Your task to perform on an android device: Open sound settings Image 0: 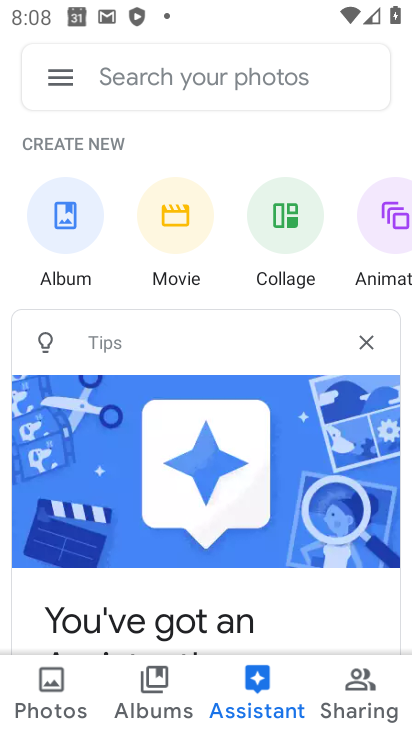
Step 0: press home button
Your task to perform on an android device: Open sound settings Image 1: 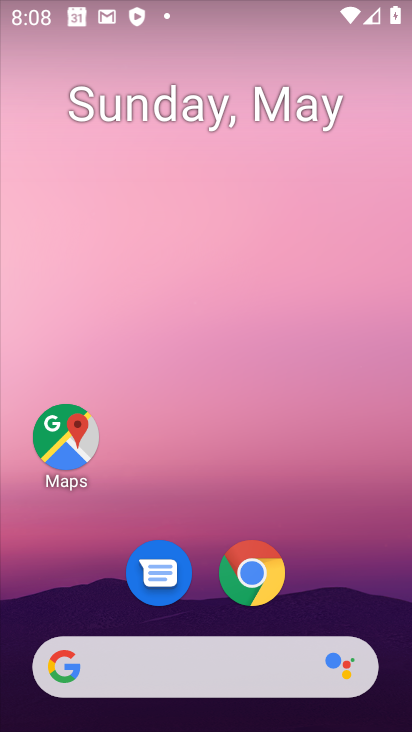
Step 1: drag from (178, 462) to (117, 4)
Your task to perform on an android device: Open sound settings Image 2: 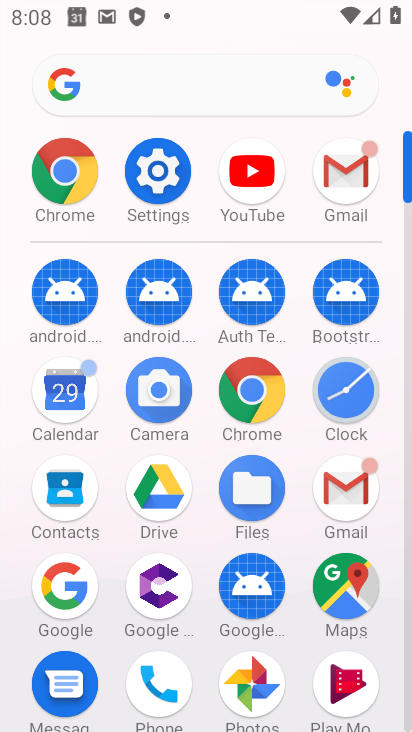
Step 2: click (153, 170)
Your task to perform on an android device: Open sound settings Image 3: 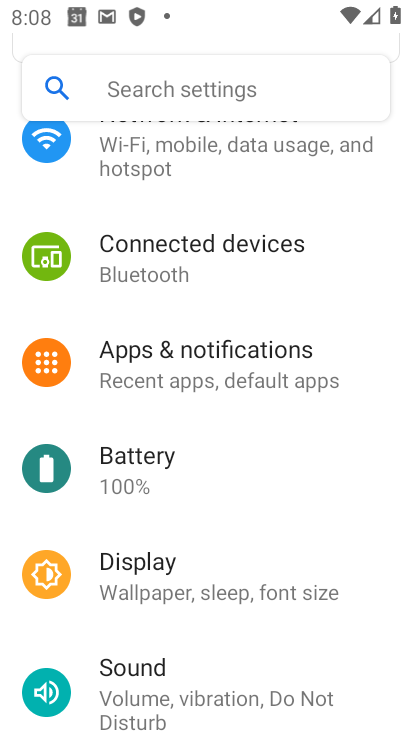
Step 3: click (214, 683)
Your task to perform on an android device: Open sound settings Image 4: 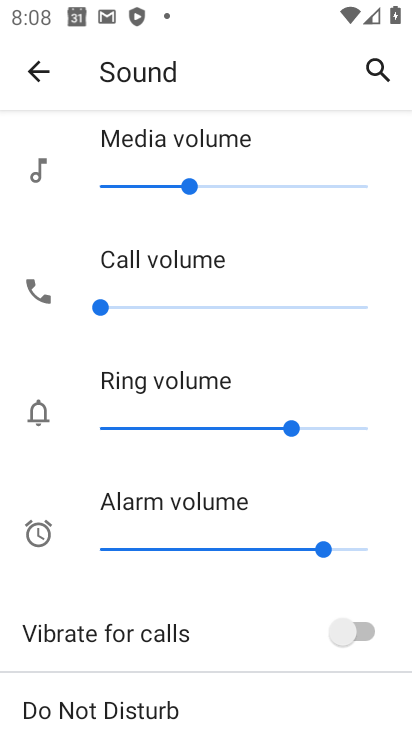
Step 4: task complete